Your task to perform on an android device: Search for a new desk on Ikea Image 0: 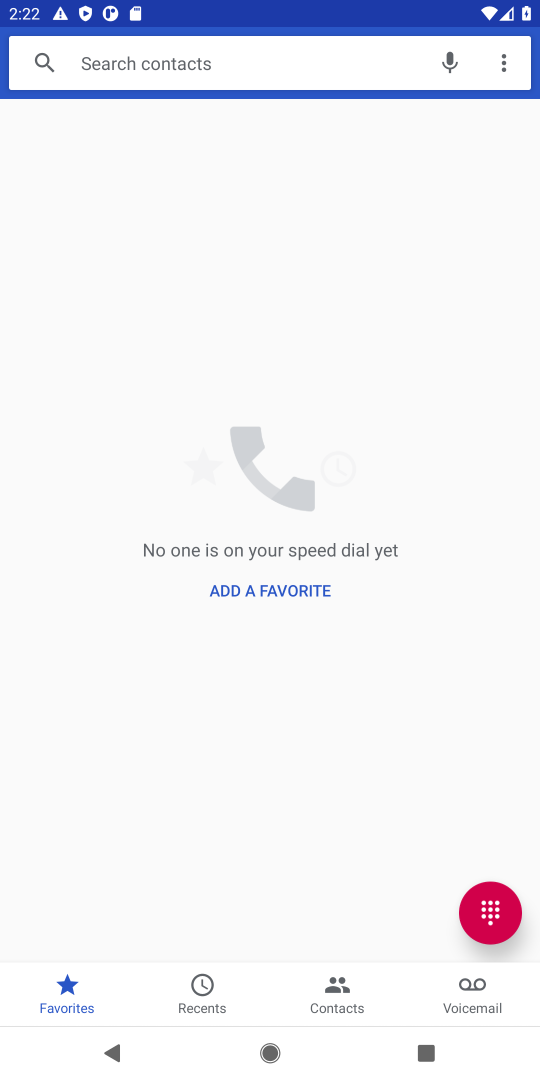
Step 0: press home button
Your task to perform on an android device: Search for a new desk on Ikea Image 1: 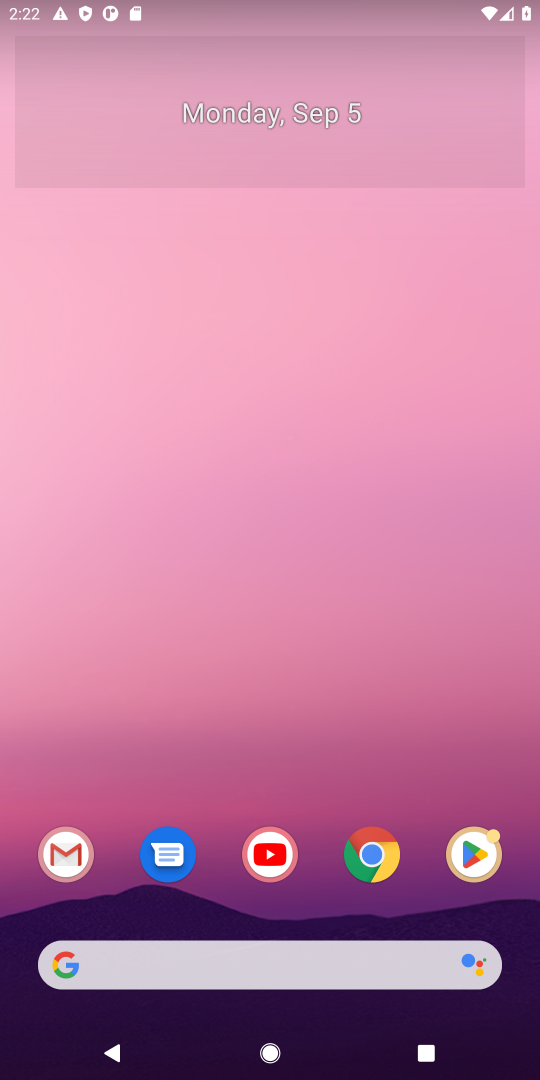
Step 1: click (376, 966)
Your task to perform on an android device: Search for a new desk on Ikea Image 2: 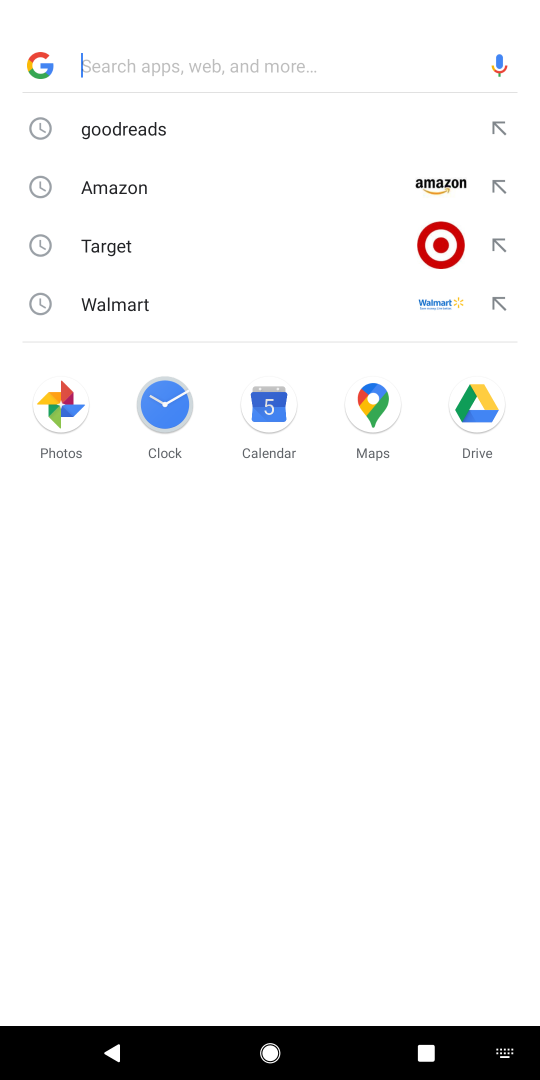
Step 2: type "ikea"
Your task to perform on an android device: Search for a new desk on Ikea Image 3: 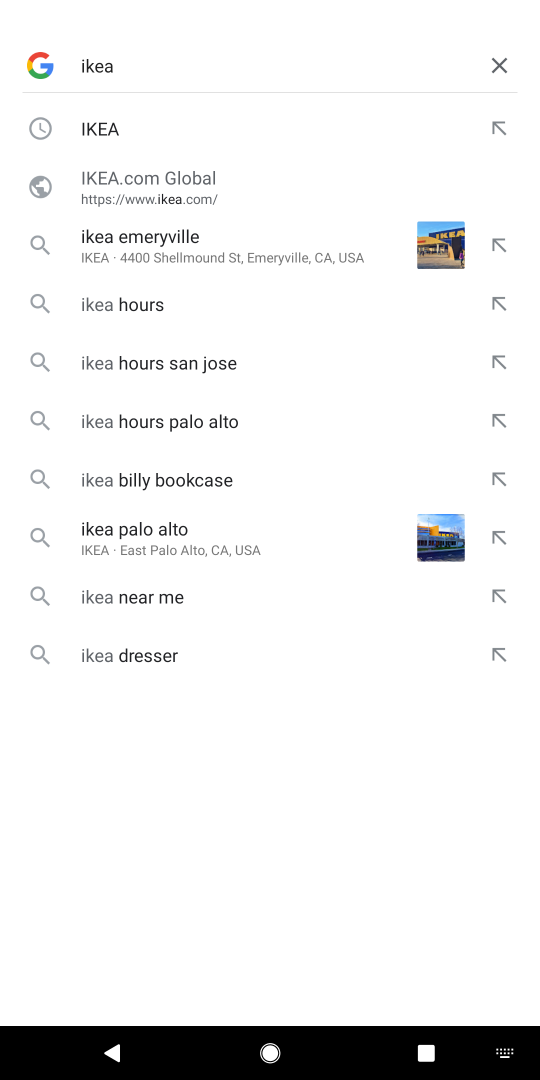
Step 3: press enter
Your task to perform on an android device: Search for a new desk on Ikea Image 4: 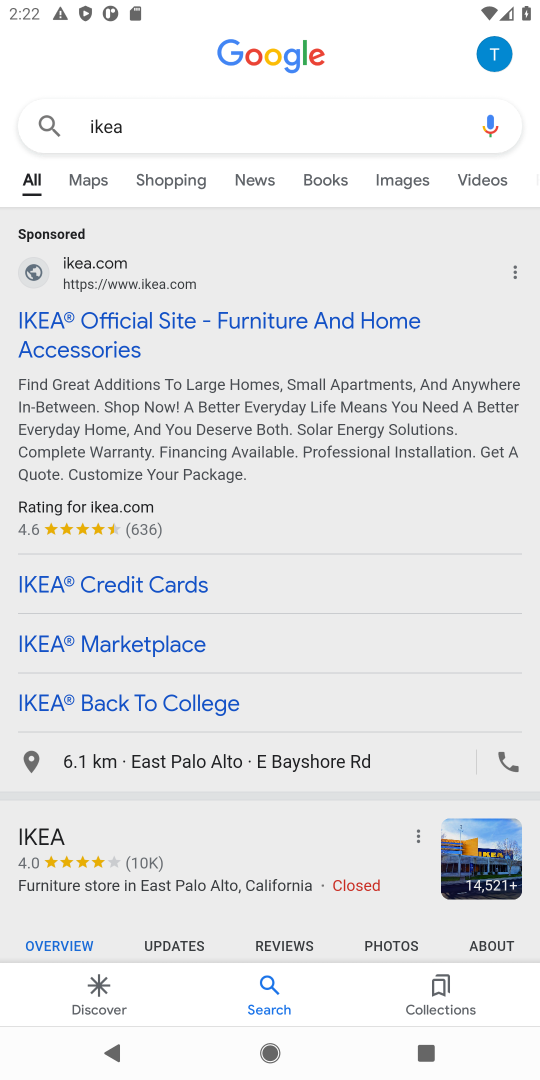
Step 4: click (134, 327)
Your task to perform on an android device: Search for a new desk on Ikea Image 5: 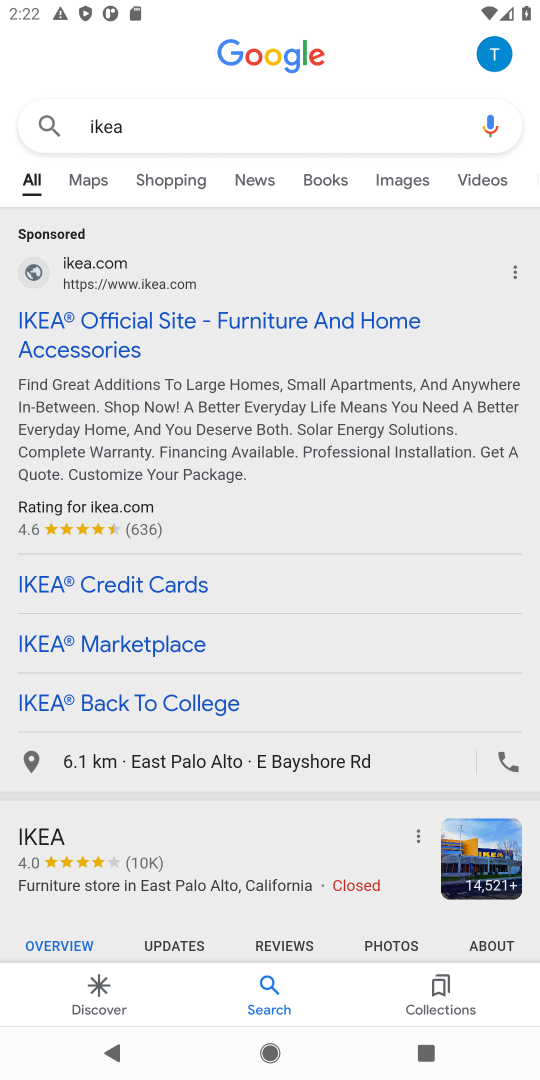
Step 5: click (114, 342)
Your task to perform on an android device: Search for a new desk on Ikea Image 6: 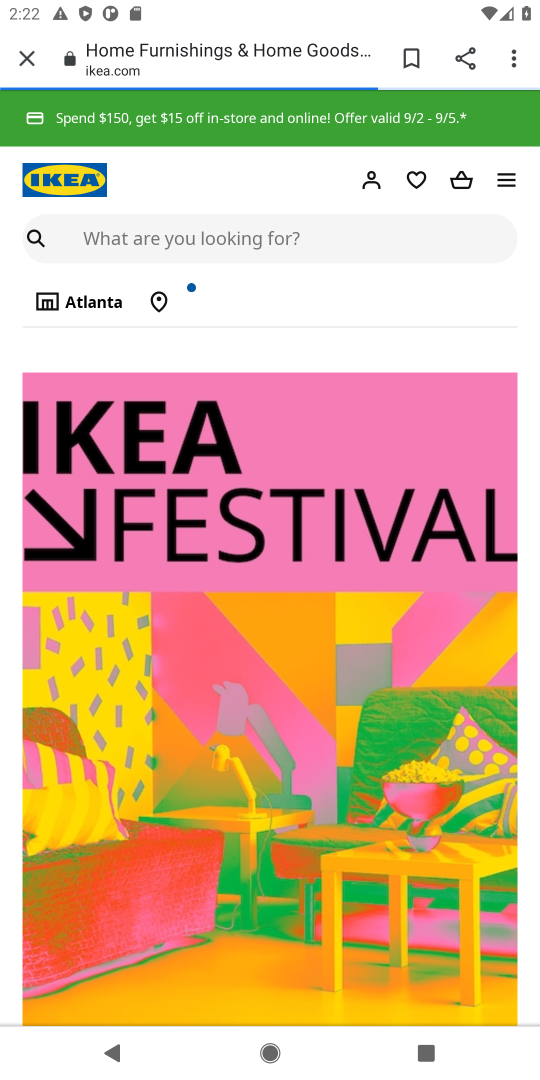
Step 6: click (252, 240)
Your task to perform on an android device: Search for a new desk on Ikea Image 7: 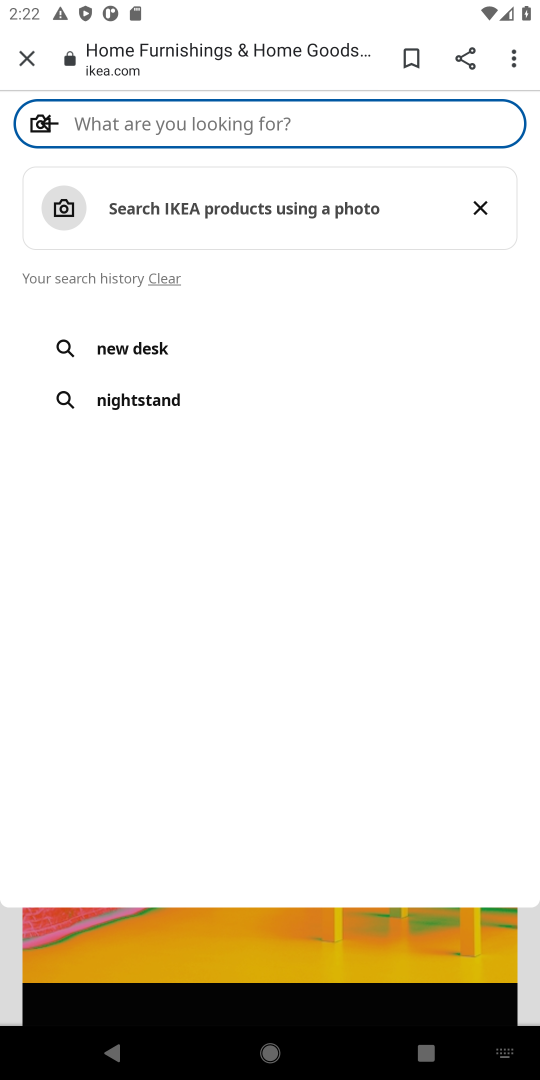
Step 7: press enter
Your task to perform on an android device: Search for a new desk on Ikea Image 8: 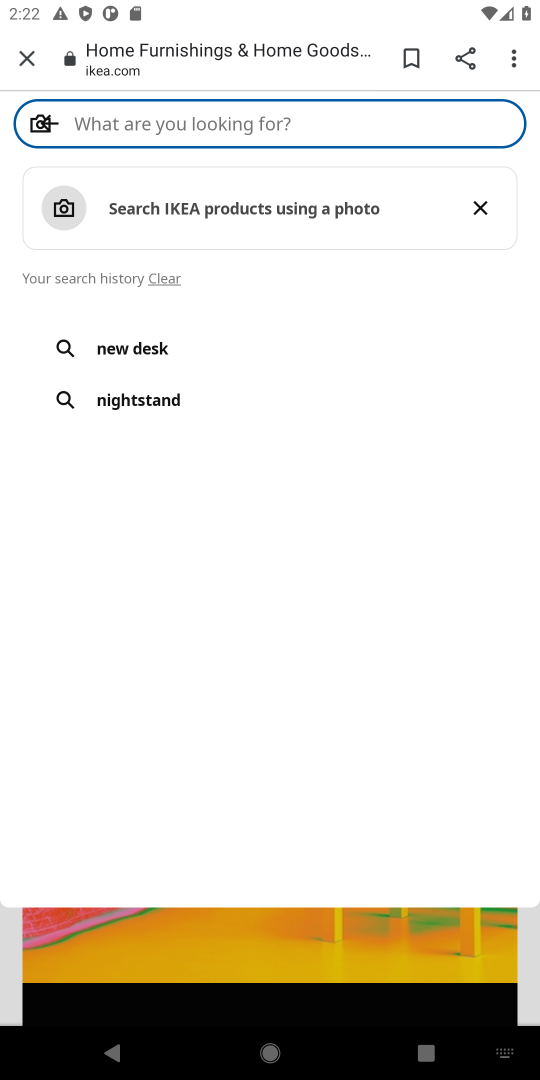
Step 8: type "new desk"
Your task to perform on an android device: Search for a new desk on Ikea Image 9: 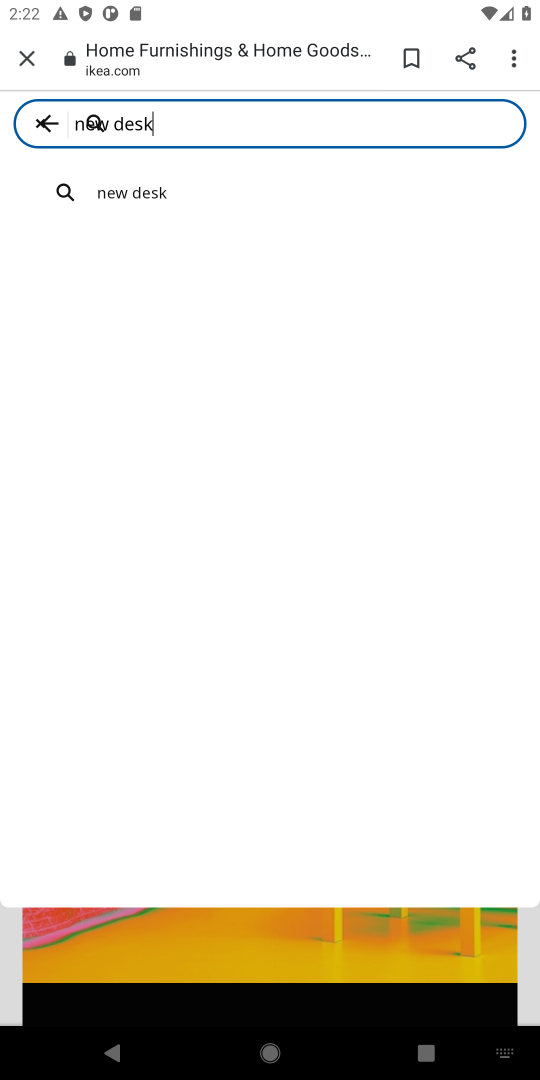
Step 9: click (148, 188)
Your task to perform on an android device: Search for a new desk on Ikea Image 10: 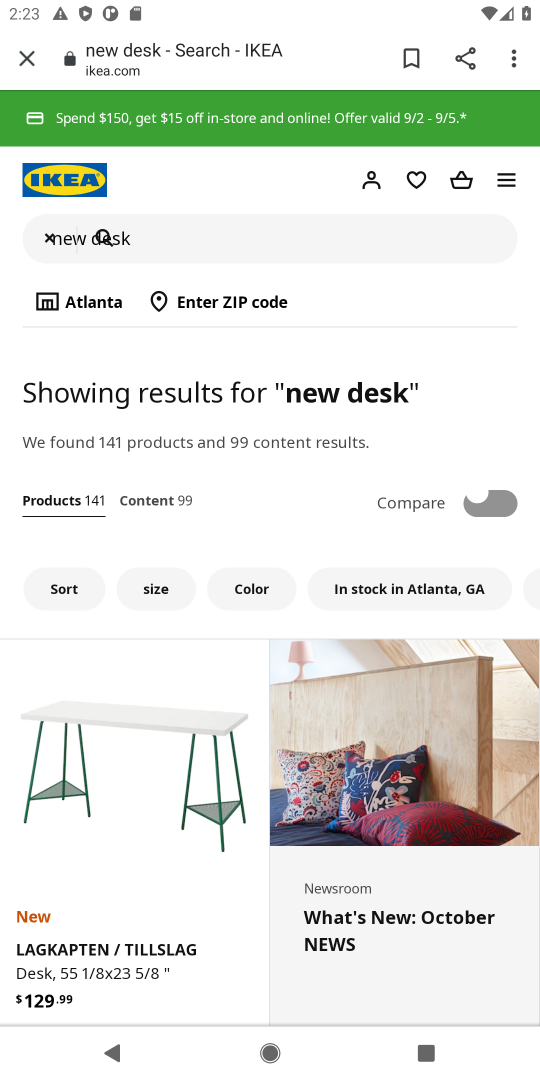
Step 10: task complete